Your task to perform on an android device: Open Chrome and go to settings Image 0: 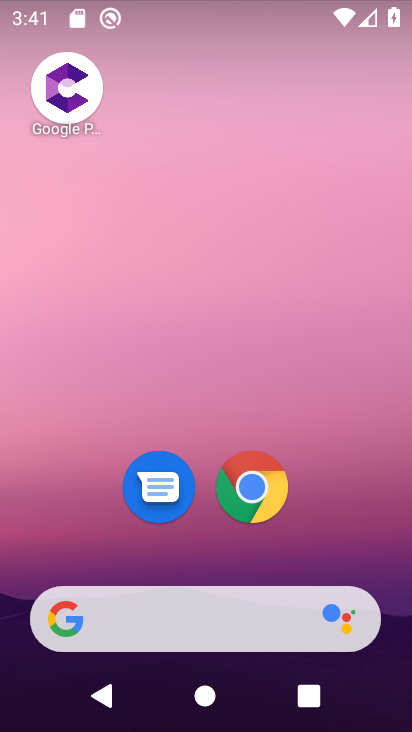
Step 0: drag from (174, 567) to (258, 44)
Your task to perform on an android device: Open Chrome and go to settings Image 1: 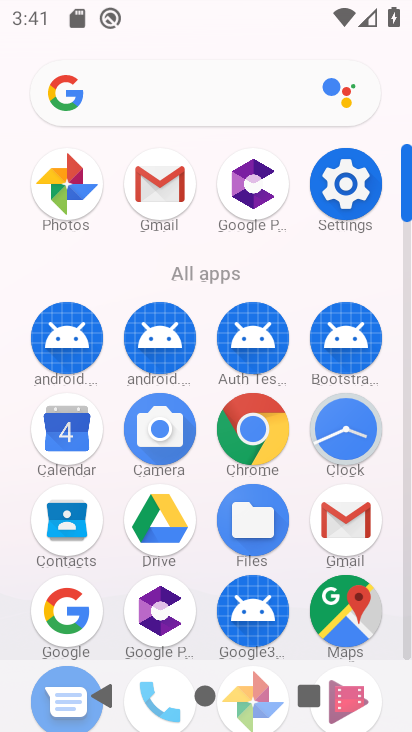
Step 1: click (350, 159)
Your task to perform on an android device: Open Chrome and go to settings Image 2: 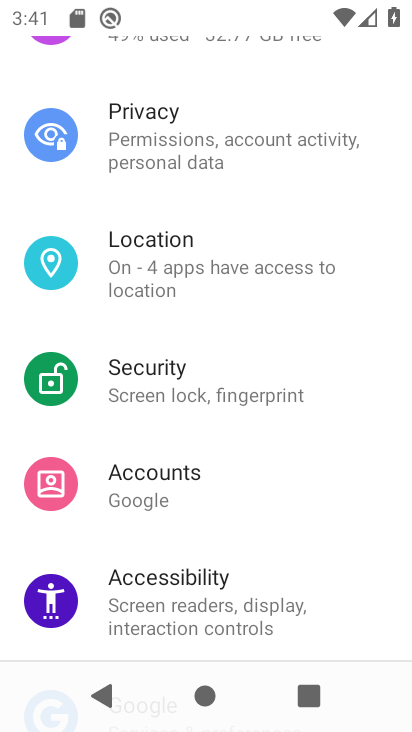
Step 2: press back button
Your task to perform on an android device: Open Chrome and go to settings Image 3: 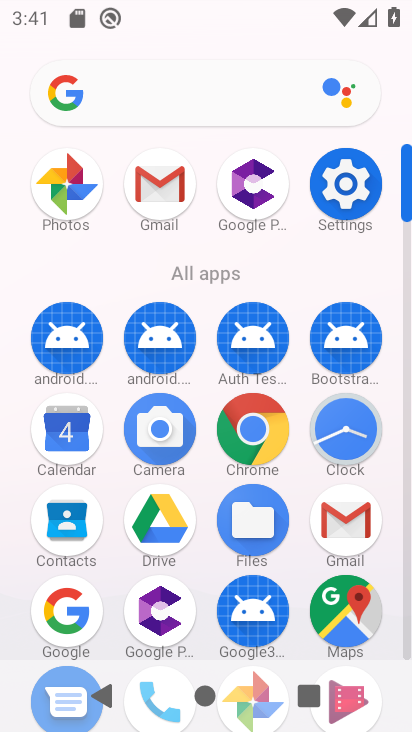
Step 3: click (254, 434)
Your task to perform on an android device: Open Chrome and go to settings Image 4: 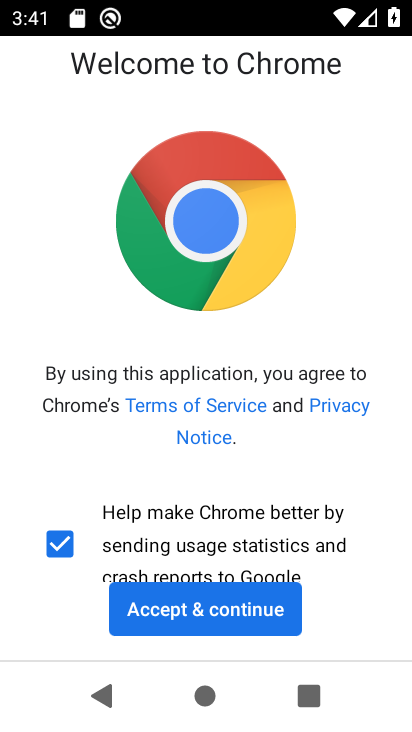
Step 4: click (175, 610)
Your task to perform on an android device: Open Chrome and go to settings Image 5: 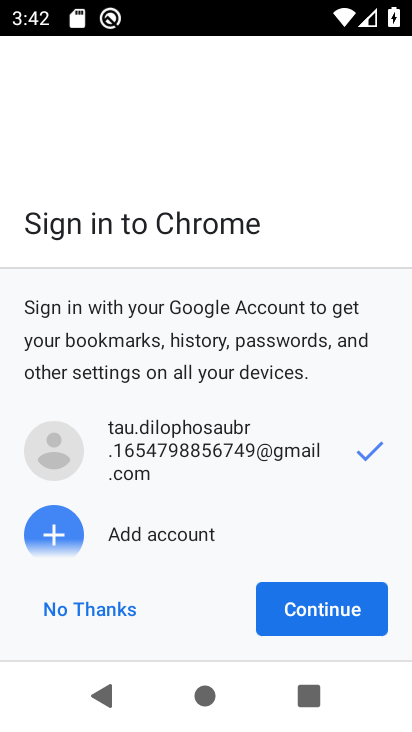
Step 5: click (315, 614)
Your task to perform on an android device: Open Chrome and go to settings Image 6: 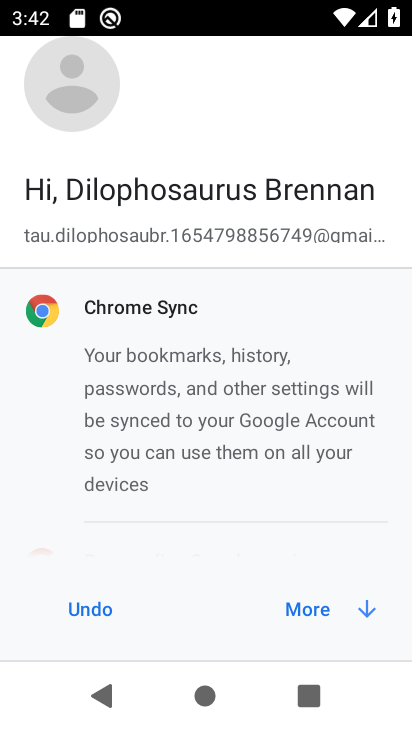
Step 6: click (315, 614)
Your task to perform on an android device: Open Chrome and go to settings Image 7: 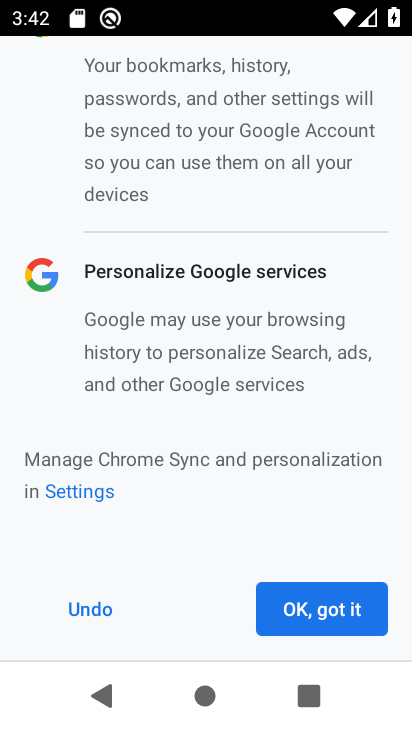
Step 7: click (299, 611)
Your task to perform on an android device: Open Chrome and go to settings Image 8: 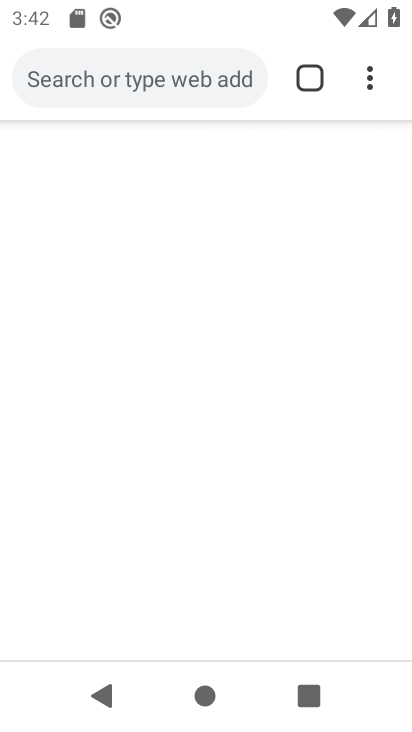
Step 8: task complete